Your task to perform on an android device: move an email to a new category in the gmail app Image 0: 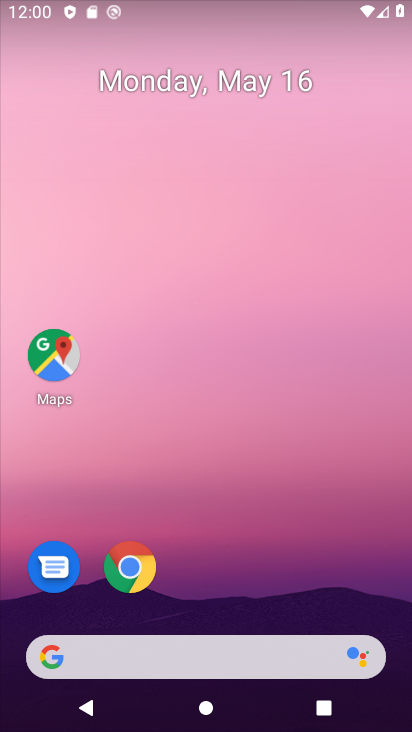
Step 0: drag from (238, 528) to (241, 123)
Your task to perform on an android device: move an email to a new category in the gmail app Image 1: 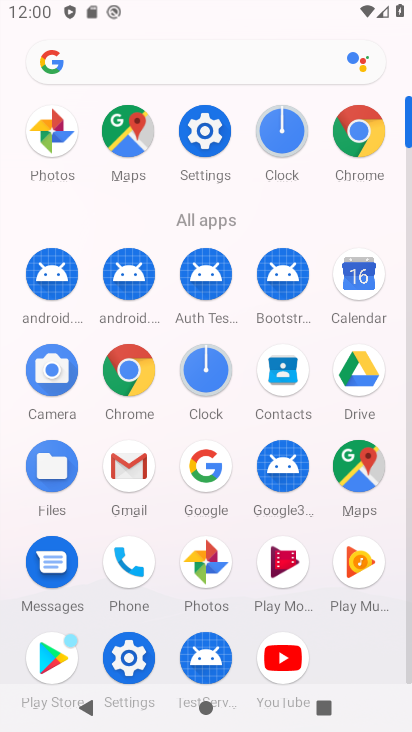
Step 1: click (133, 467)
Your task to perform on an android device: move an email to a new category in the gmail app Image 2: 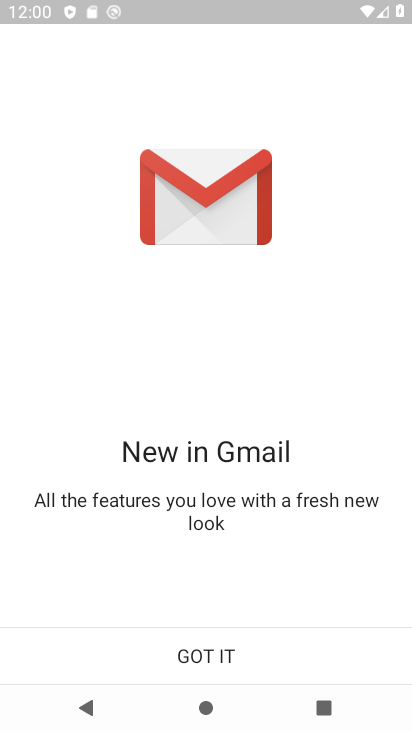
Step 2: click (213, 645)
Your task to perform on an android device: move an email to a new category in the gmail app Image 3: 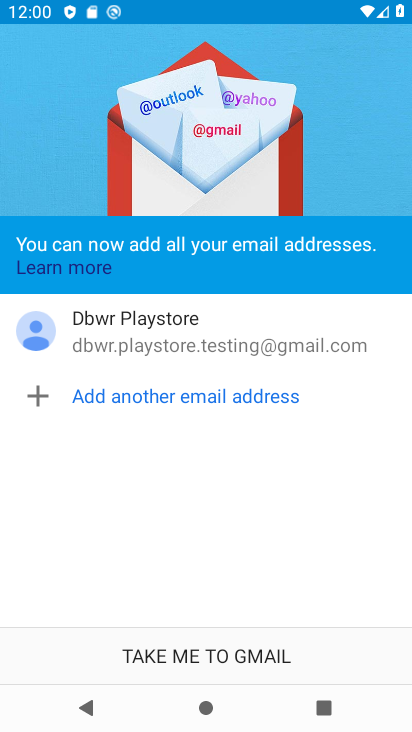
Step 3: click (213, 645)
Your task to perform on an android device: move an email to a new category in the gmail app Image 4: 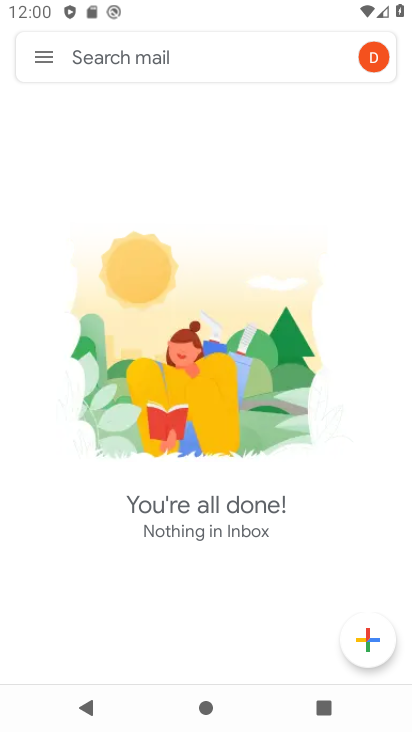
Step 4: click (49, 52)
Your task to perform on an android device: move an email to a new category in the gmail app Image 5: 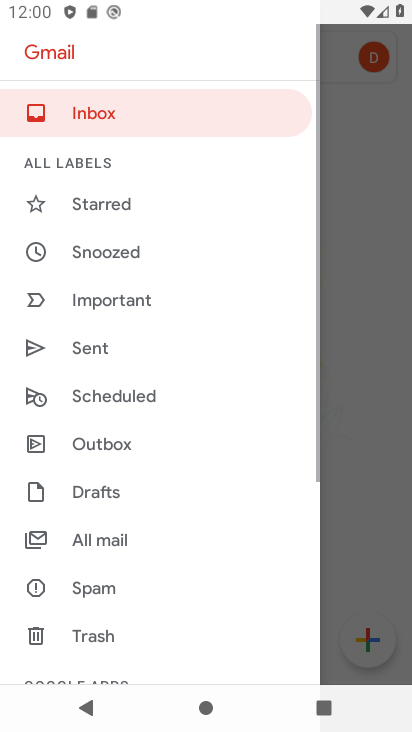
Step 5: drag from (149, 575) to (274, 193)
Your task to perform on an android device: move an email to a new category in the gmail app Image 6: 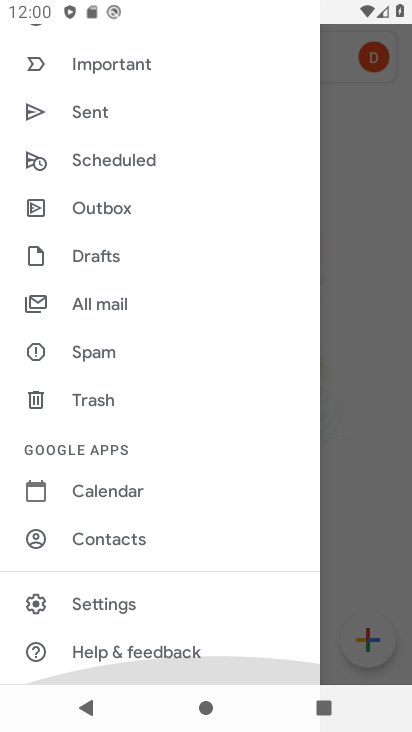
Step 6: click (274, 193)
Your task to perform on an android device: move an email to a new category in the gmail app Image 7: 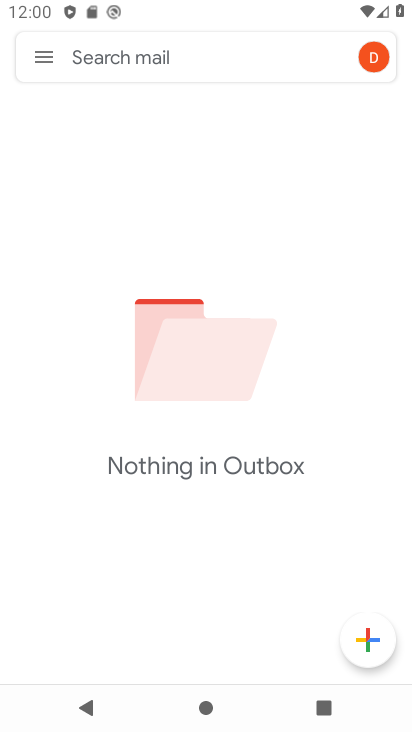
Step 7: click (50, 45)
Your task to perform on an android device: move an email to a new category in the gmail app Image 8: 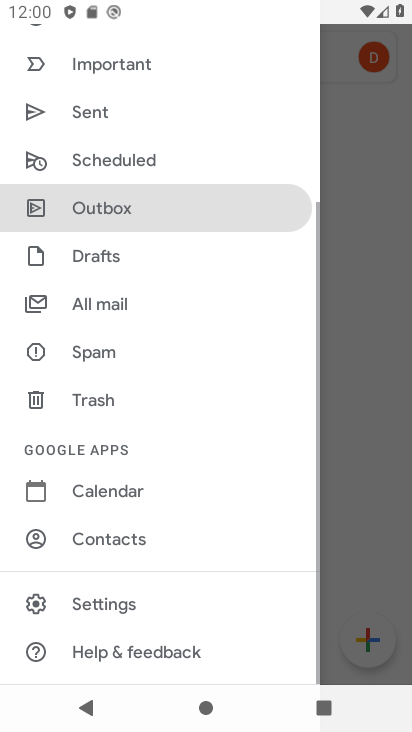
Step 8: drag from (165, 519) to (210, 642)
Your task to perform on an android device: move an email to a new category in the gmail app Image 9: 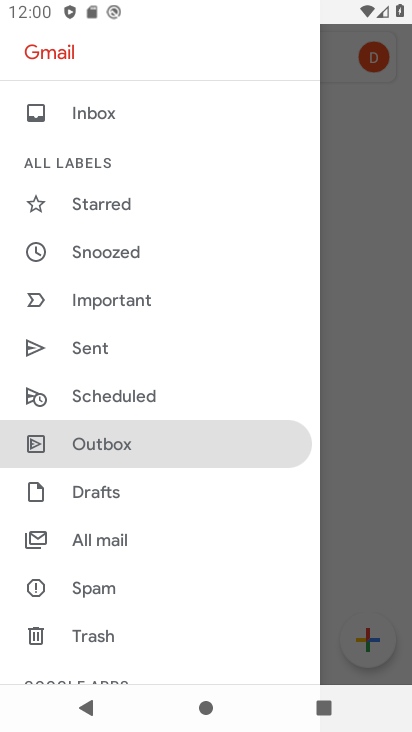
Step 9: click (111, 538)
Your task to perform on an android device: move an email to a new category in the gmail app Image 10: 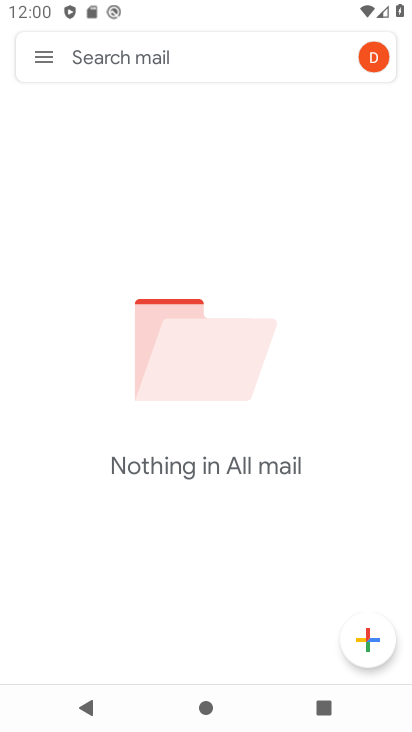
Step 10: task complete